Your task to perform on an android device: find photos in the google photos app Image 0: 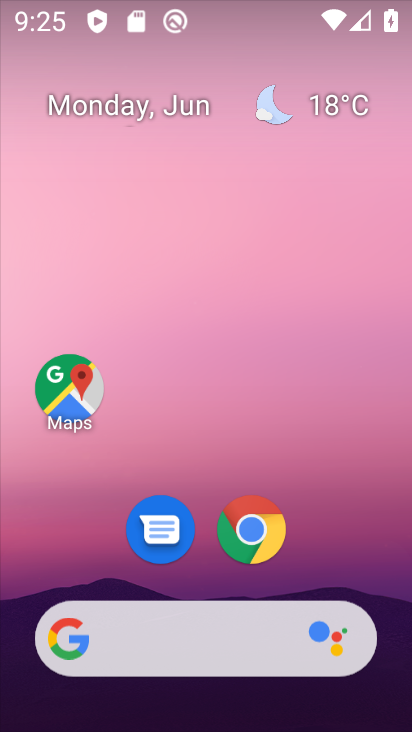
Step 0: drag from (189, 649) to (144, 90)
Your task to perform on an android device: find photos in the google photos app Image 1: 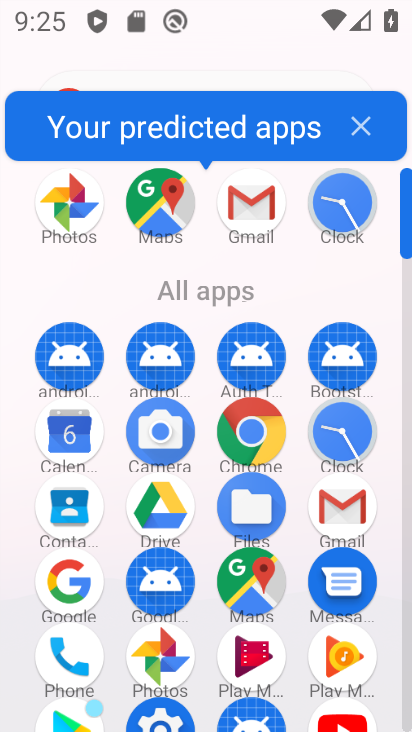
Step 1: click (176, 648)
Your task to perform on an android device: find photos in the google photos app Image 2: 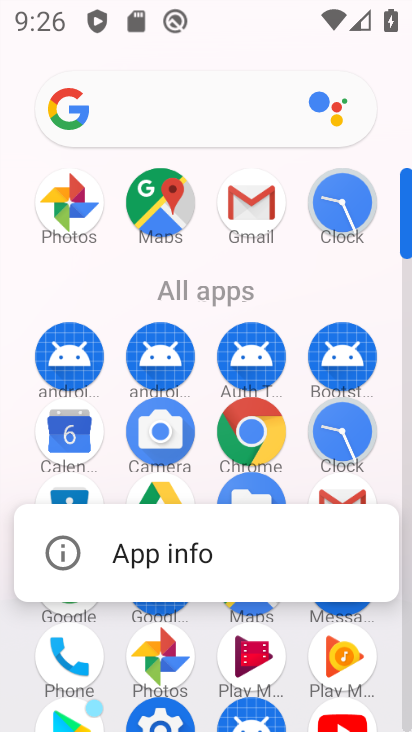
Step 2: click (176, 648)
Your task to perform on an android device: find photos in the google photos app Image 3: 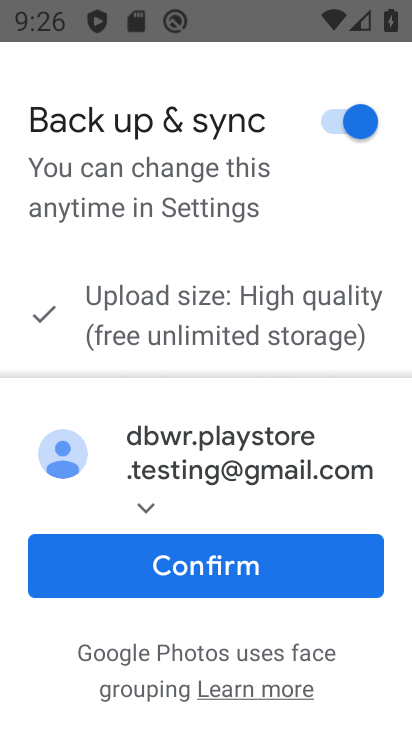
Step 3: click (261, 552)
Your task to perform on an android device: find photos in the google photos app Image 4: 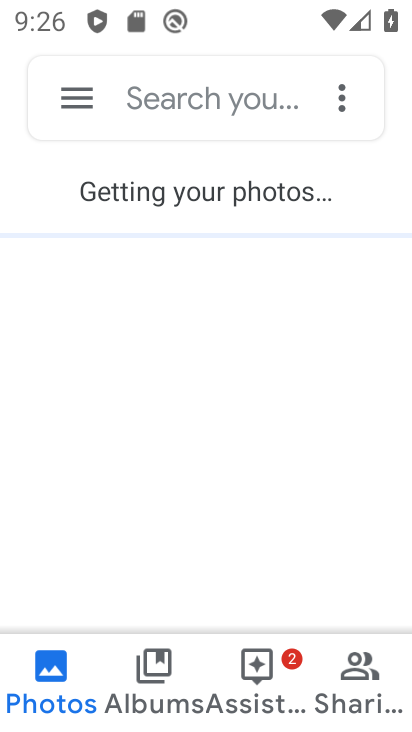
Step 4: task complete